Your task to perform on an android device: Open location settings Image 0: 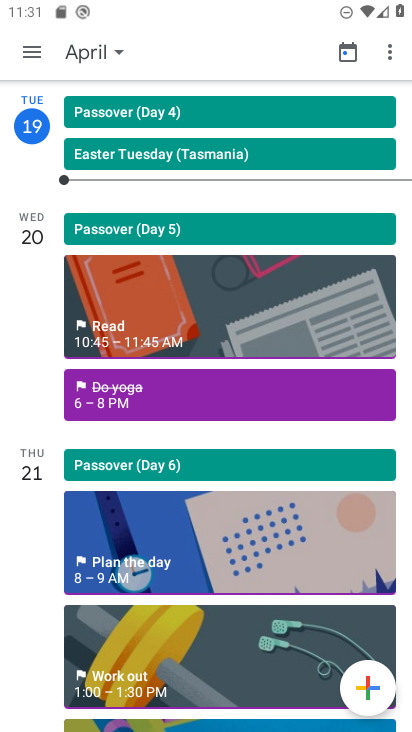
Step 0: press back button
Your task to perform on an android device: Open location settings Image 1: 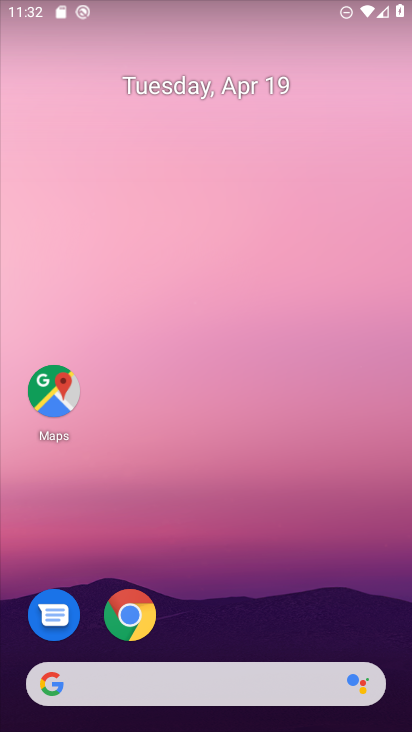
Step 1: drag from (185, 643) to (137, 305)
Your task to perform on an android device: Open location settings Image 2: 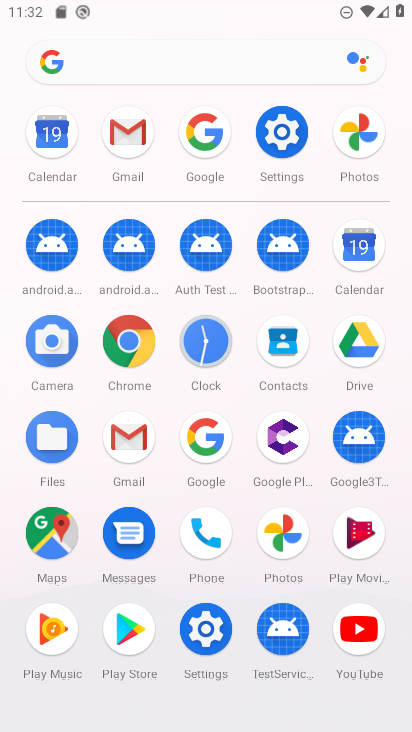
Step 2: click (287, 122)
Your task to perform on an android device: Open location settings Image 3: 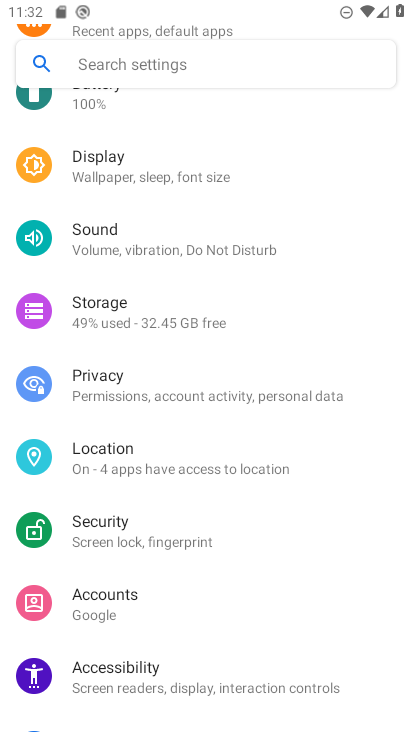
Step 3: click (110, 453)
Your task to perform on an android device: Open location settings Image 4: 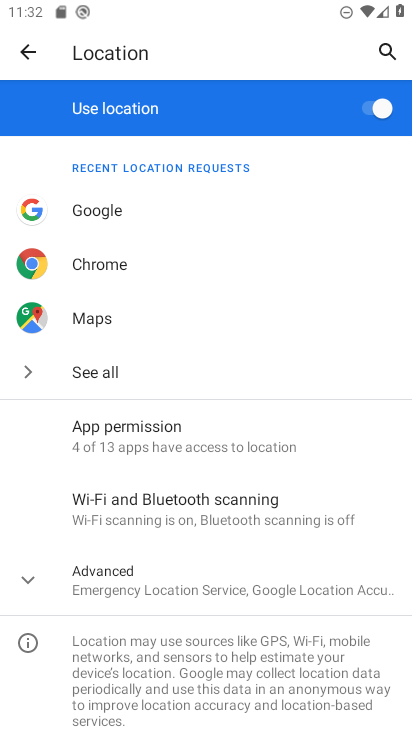
Step 4: drag from (219, 673) to (169, 349)
Your task to perform on an android device: Open location settings Image 5: 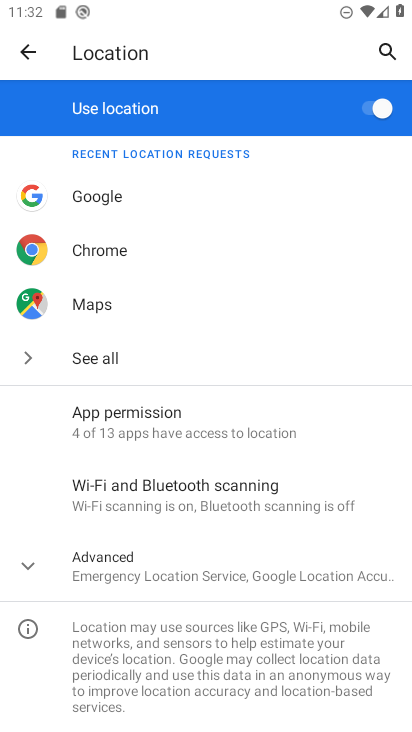
Step 5: click (153, 586)
Your task to perform on an android device: Open location settings Image 6: 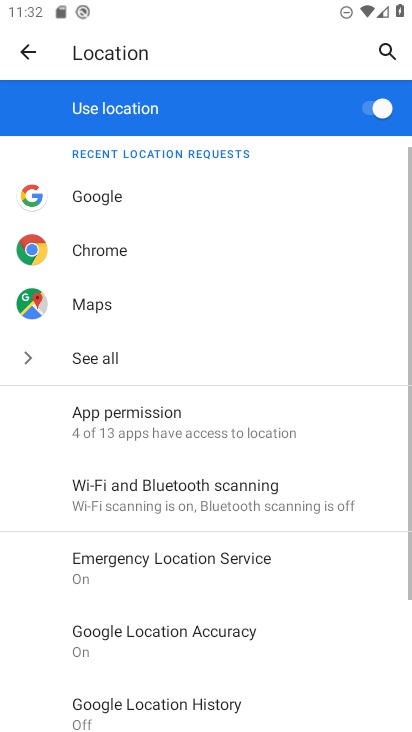
Step 6: task complete